Your task to perform on an android device: Open Chrome and go to settings Image 0: 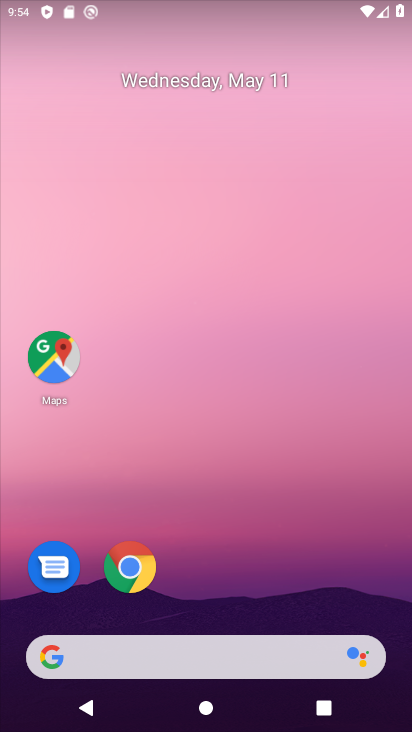
Step 0: click (115, 578)
Your task to perform on an android device: Open Chrome and go to settings Image 1: 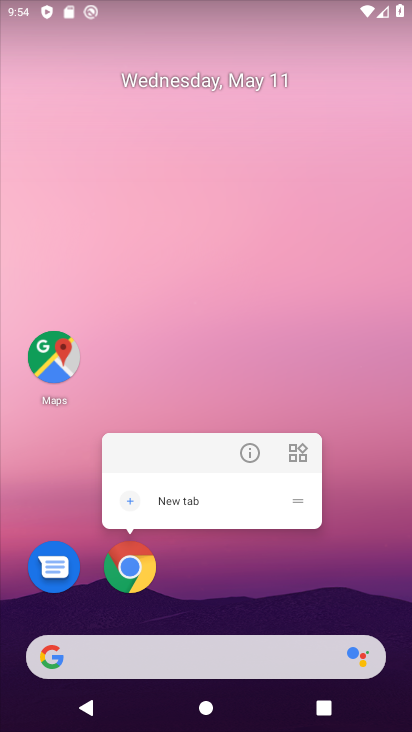
Step 1: click (122, 573)
Your task to perform on an android device: Open Chrome and go to settings Image 2: 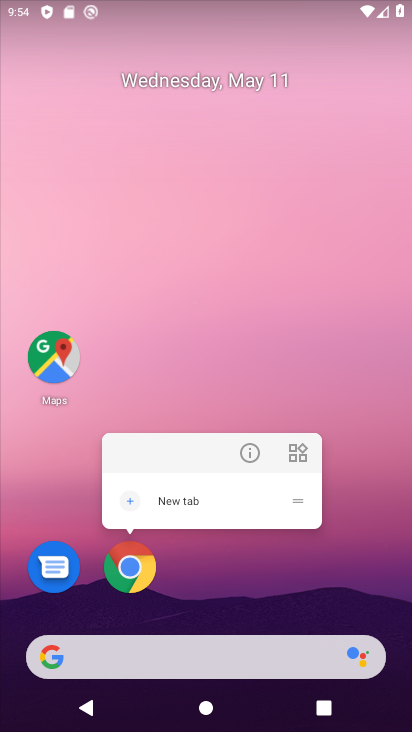
Step 2: click (122, 573)
Your task to perform on an android device: Open Chrome and go to settings Image 3: 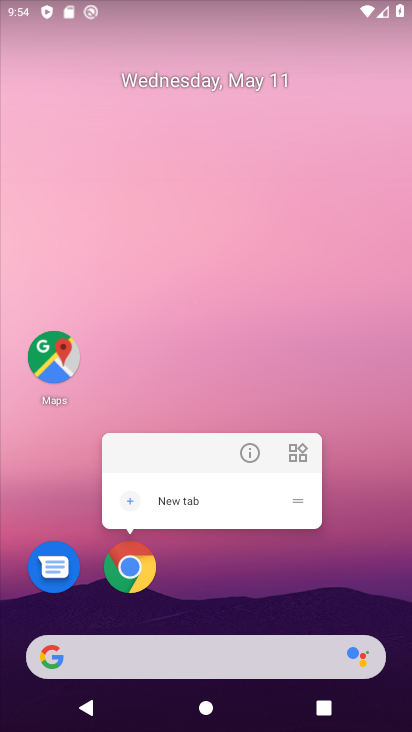
Step 3: click (133, 571)
Your task to perform on an android device: Open Chrome and go to settings Image 4: 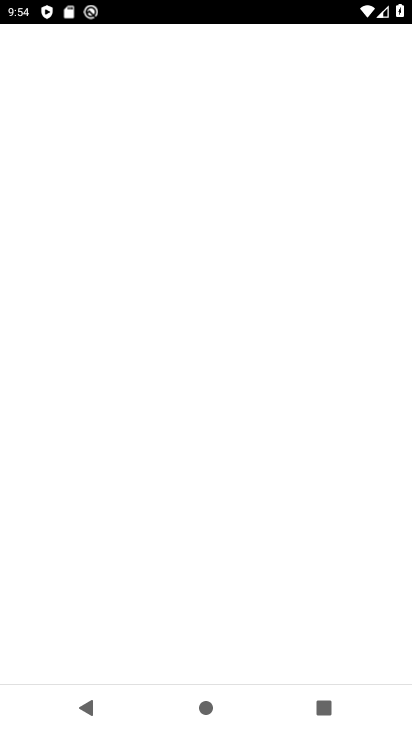
Step 4: click (133, 571)
Your task to perform on an android device: Open Chrome and go to settings Image 5: 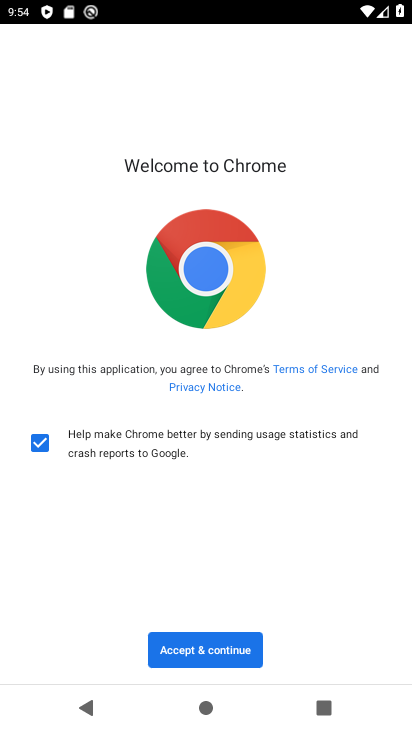
Step 5: click (215, 653)
Your task to perform on an android device: Open Chrome and go to settings Image 6: 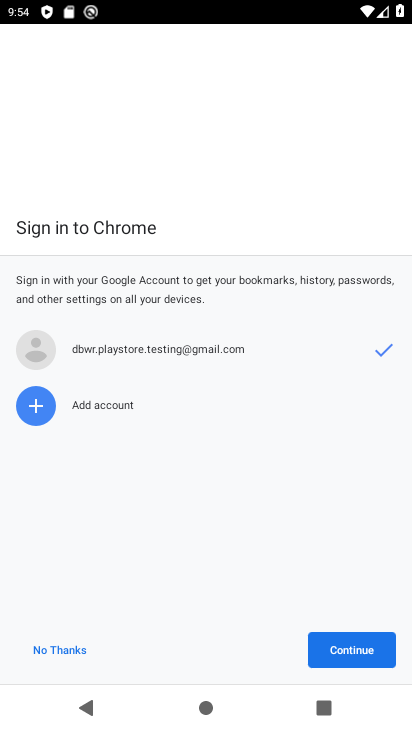
Step 6: click (329, 645)
Your task to perform on an android device: Open Chrome and go to settings Image 7: 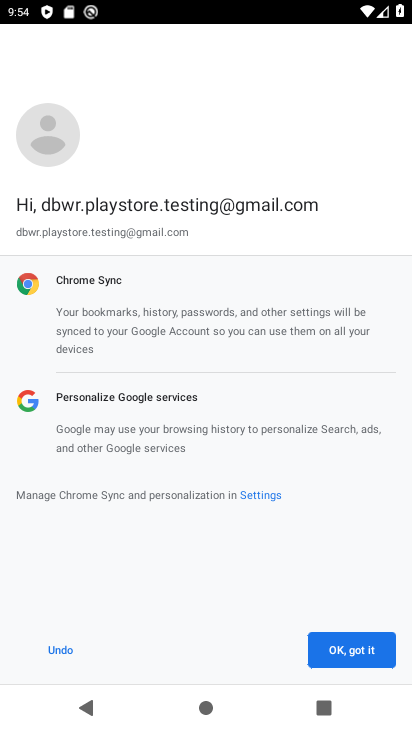
Step 7: click (364, 662)
Your task to perform on an android device: Open Chrome and go to settings Image 8: 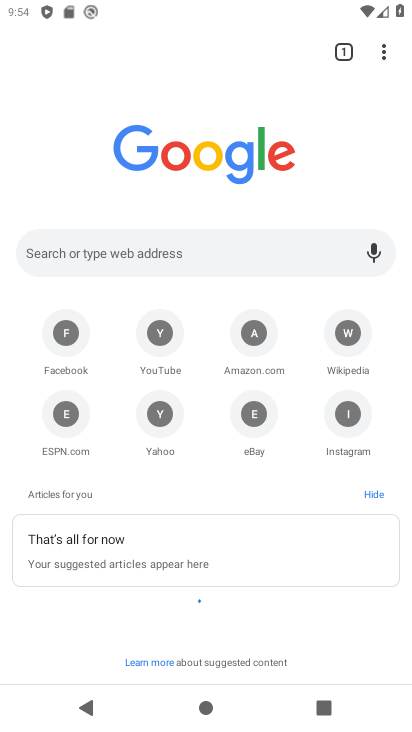
Step 8: task complete